Your task to perform on an android device: set an alarm Image 0: 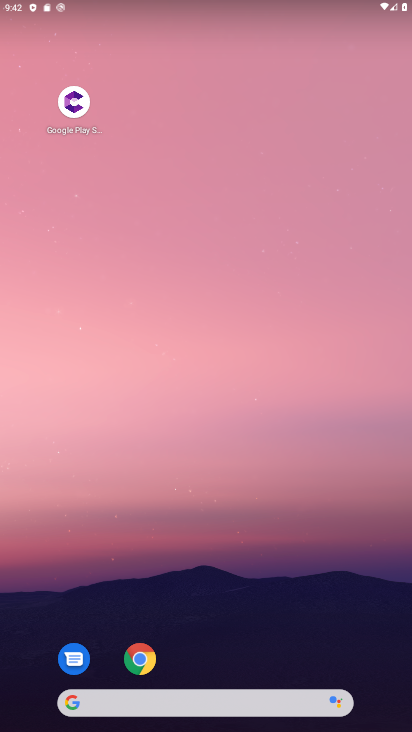
Step 0: task complete